Your task to perform on an android device: Toggle the flashlight Image 0: 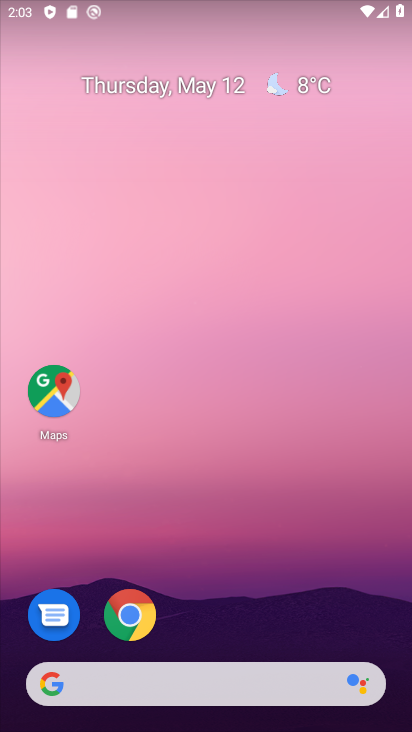
Step 0: drag from (353, 188) to (310, 680)
Your task to perform on an android device: Toggle the flashlight Image 1: 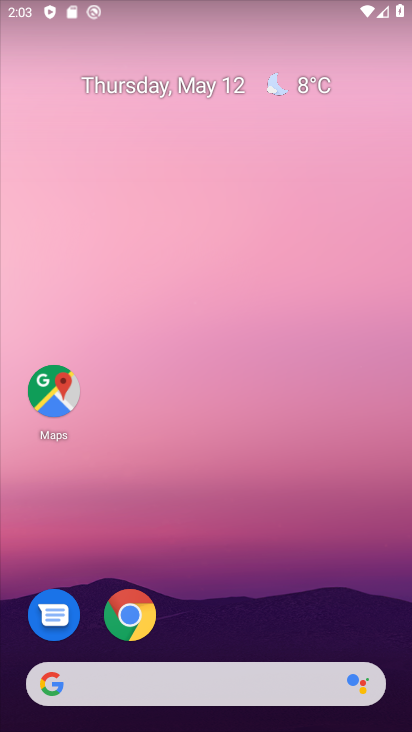
Step 1: task complete